Your task to perform on an android device: snooze an email in the gmail app Image 0: 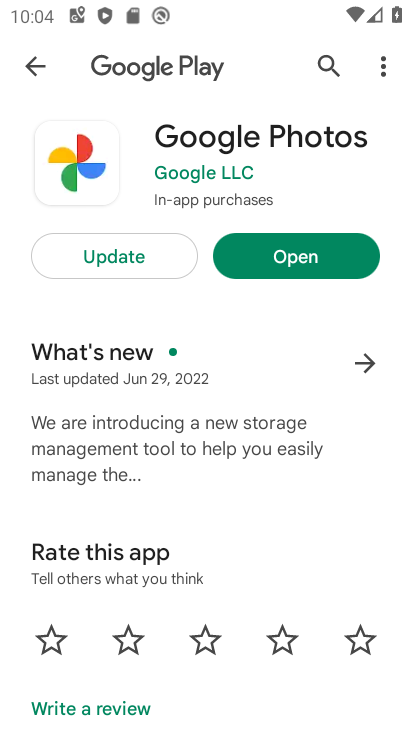
Step 0: press home button
Your task to perform on an android device: snooze an email in the gmail app Image 1: 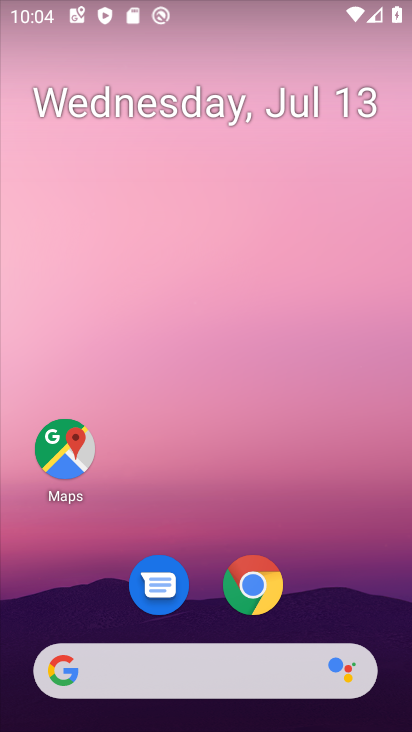
Step 1: drag from (331, 588) to (362, 37)
Your task to perform on an android device: snooze an email in the gmail app Image 2: 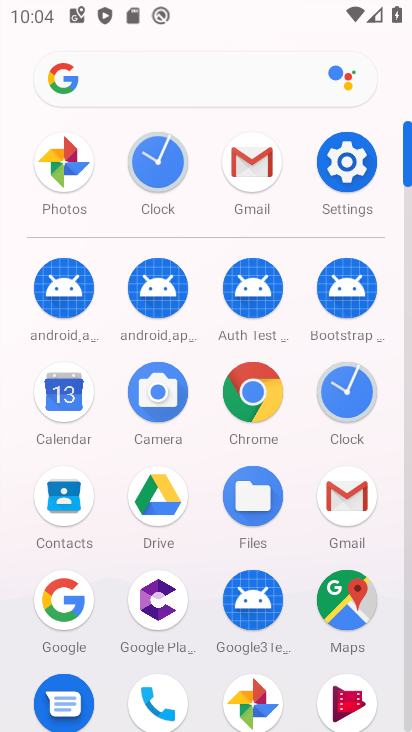
Step 2: click (258, 160)
Your task to perform on an android device: snooze an email in the gmail app Image 3: 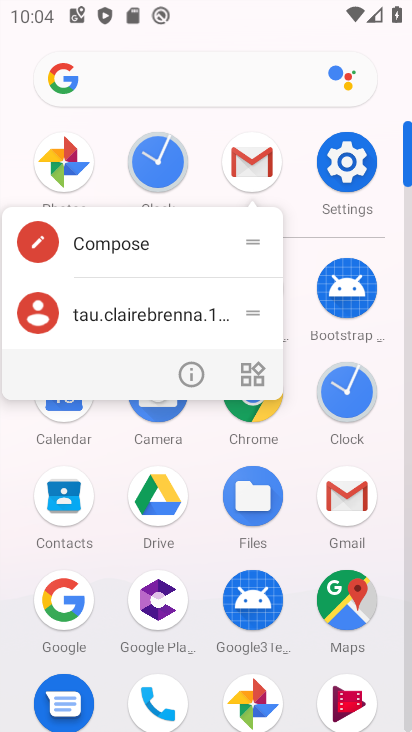
Step 3: click (258, 160)
Your task to perform on an android device: snooze an email in the gmail app Image 4: 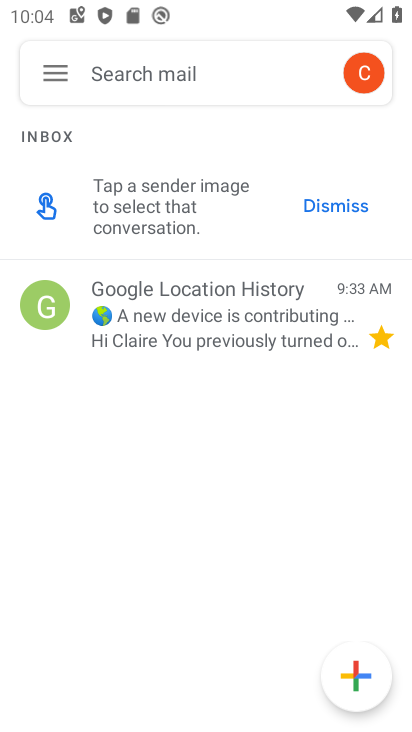
Step 4: click (243, 328)
Your task to perform on an android device: snooze an email in the gmail app Image 5: 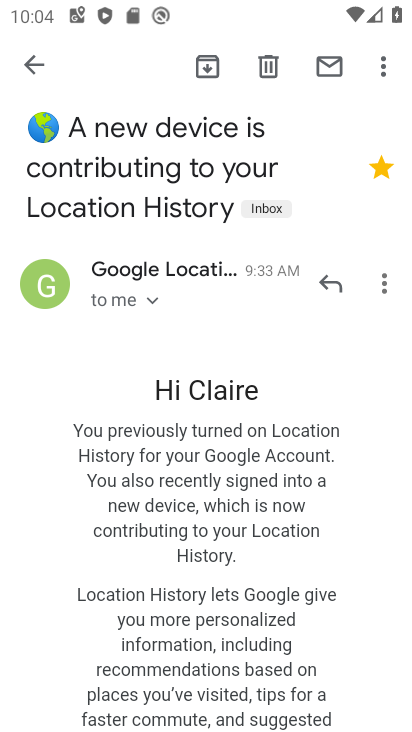
Step 5: click (378, 68)
Your task to perform on an android device: snooze an email in the gmail app Image 6: 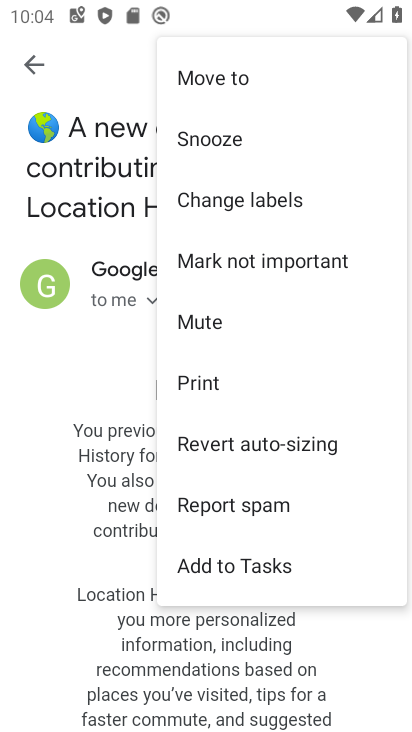
Step 6: click (241, 140)
Your task to perform on an android device: snooze an email in the gmail app Image 7: 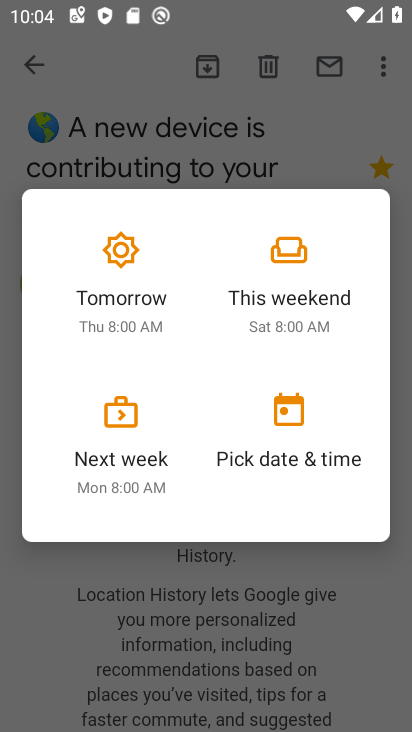
Step 7: click (139, 286)
Your task to perform on an android device: snooze an email in the gmail app Image 8: 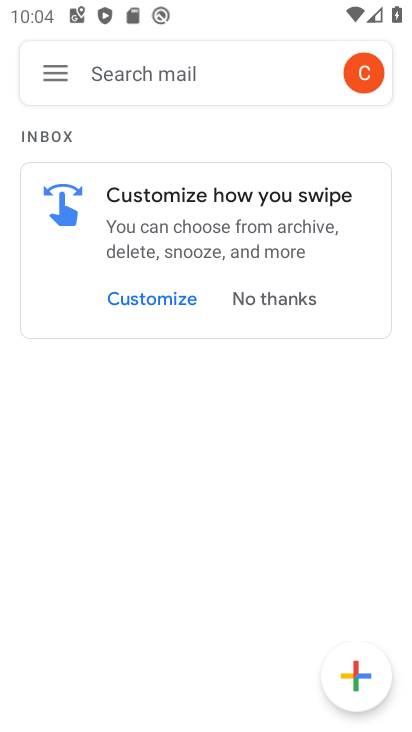
Step 8: task complete